Your task to perform on an android device: set the timer Image 0: 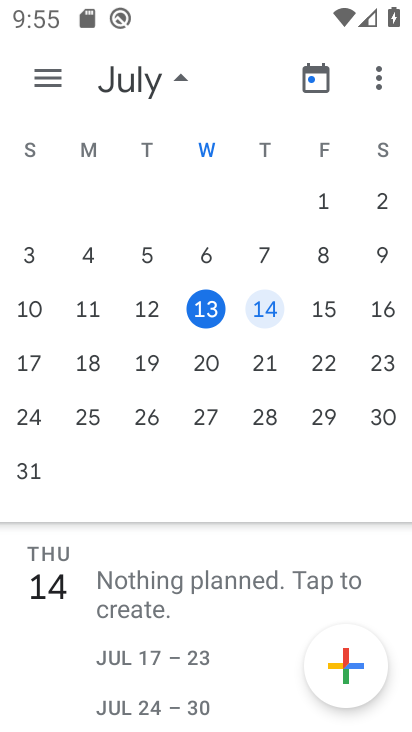
Step 0: press home button
Your task to perform on an android device: set the timer Image 1: 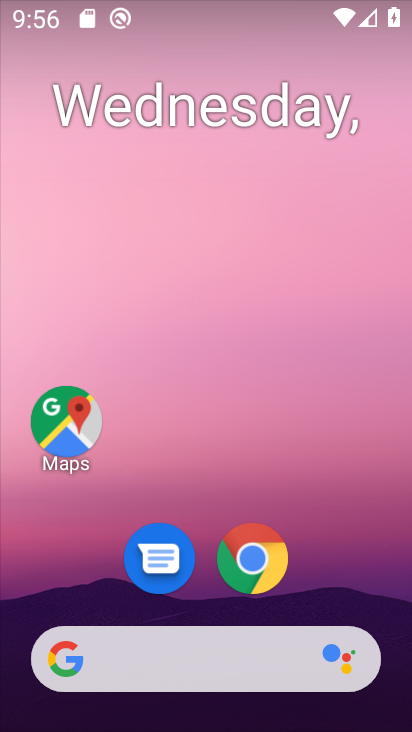
Step 1: drag from (362, 570) to (375, 161)
Your task to perform on an android device: set the timer Image 2: 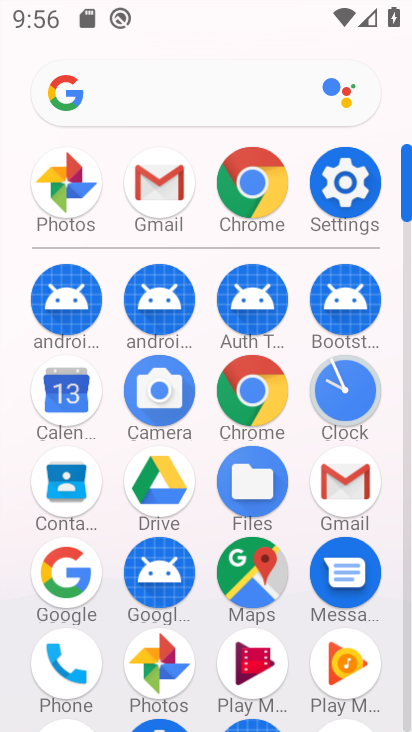
Step 2: click (360, 393)
Your task to perform on an android device: set the timer Image 3: 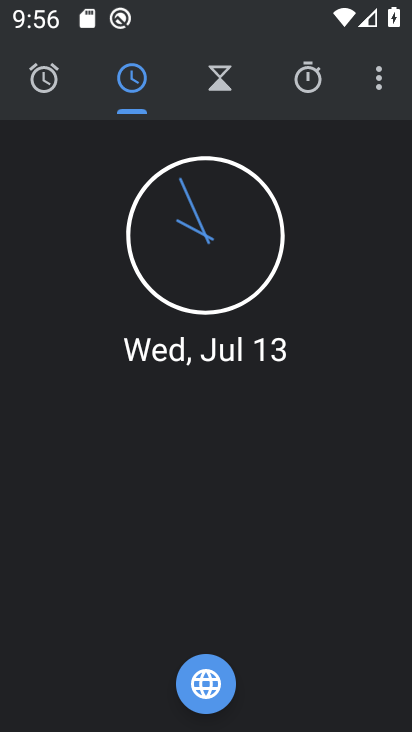
Step 3: click (48, 95)
Your task to perform on an android device: set the timer Image 4: 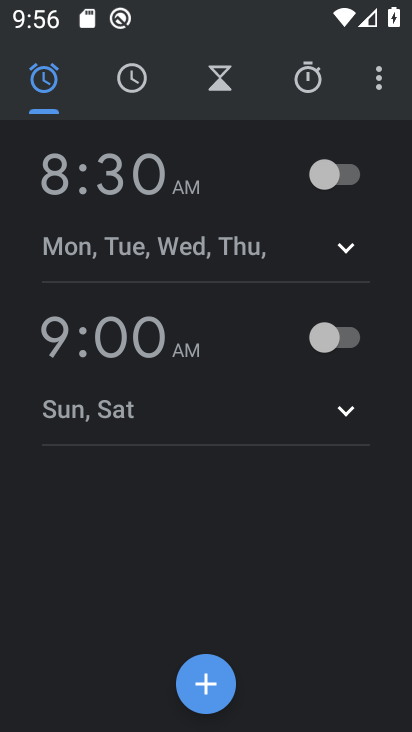
Step 4: click (205, 691)
Your task to perform on an android device: set the timer Image 5: 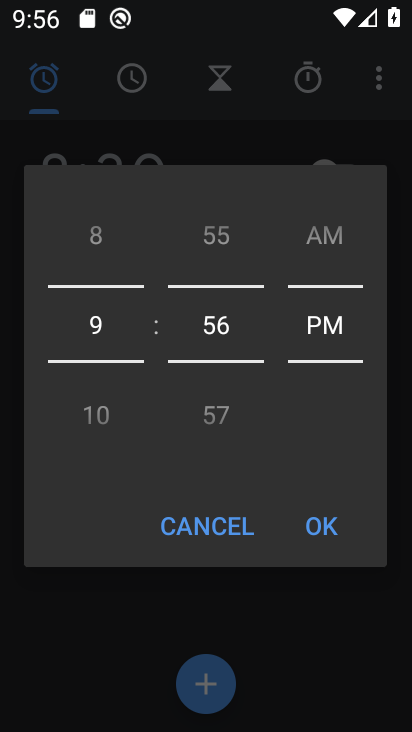
Step 5: click (318, 538)
Your task to perform on an android device: set the timer Image 6: 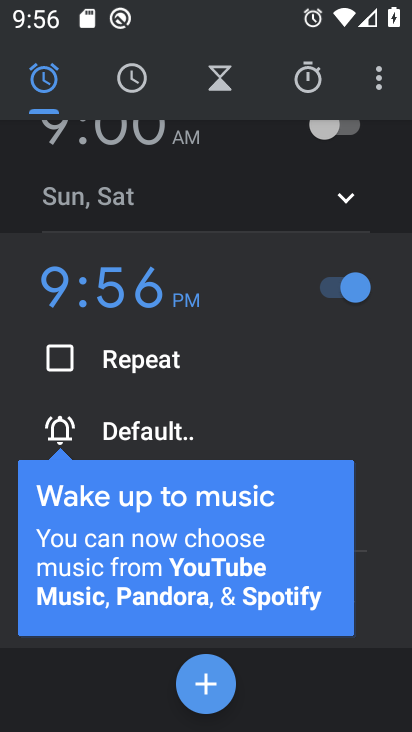
Step 6: task complete